Your task to perform on an android device: turn on improve location accuracy Image 0: 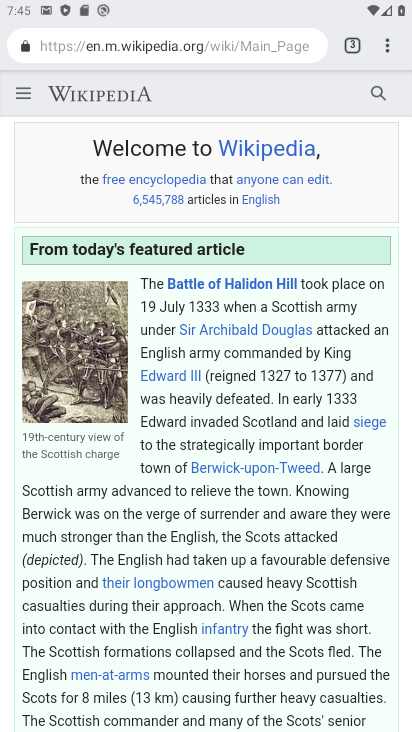
Step 0: press home button
Your task to perform on an android device: turn on improve location accuracy Image 1: 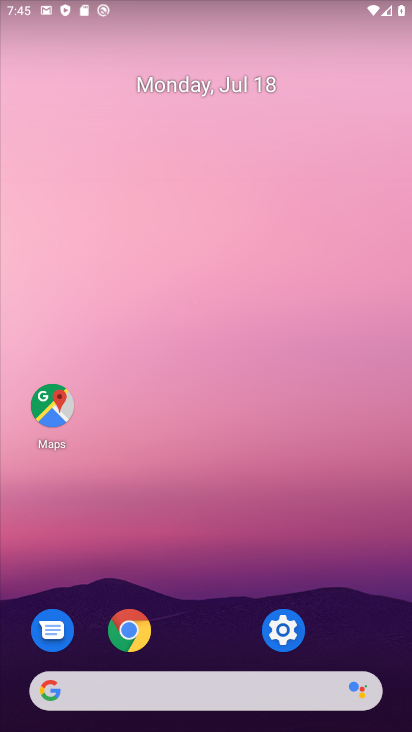
Step 1: click (283, 637)
Your task to perform on an android device: turn on improve location accuracy Image 2: 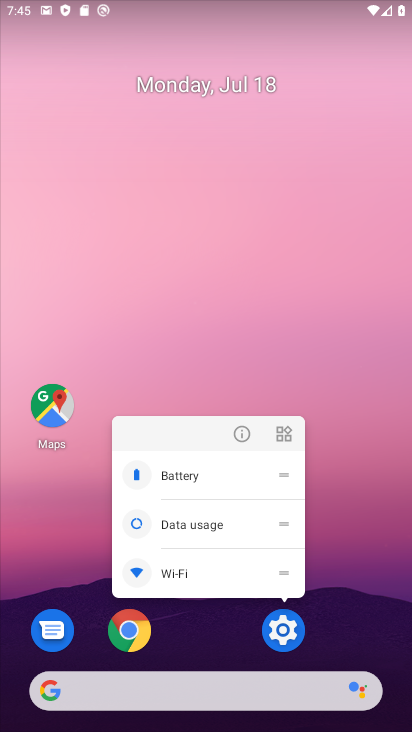
Step 2: click (196, 312)
Your task to perform on an android device: turn on improve location accuracy Image 3: 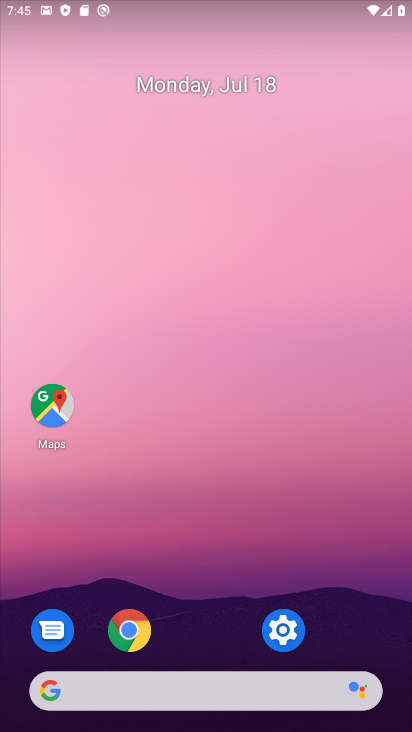
Step 3: click (289, 618)
Your task to perform on an android device: turn on improve location accuracy Image 4: 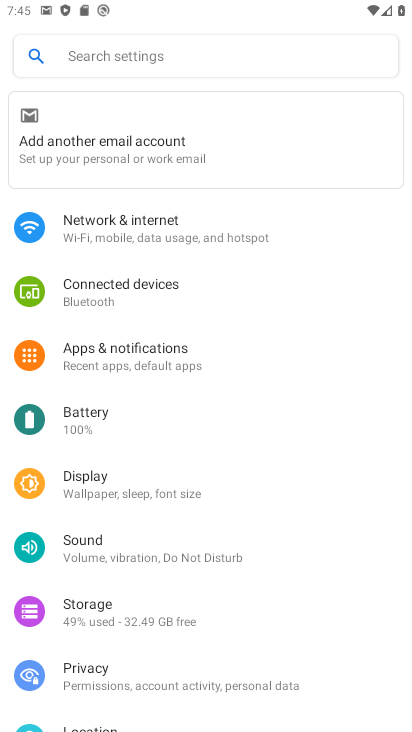
Step 4: click (100, 81)
Your task to perform on an android device: turn on improve location accuracy Image 5: 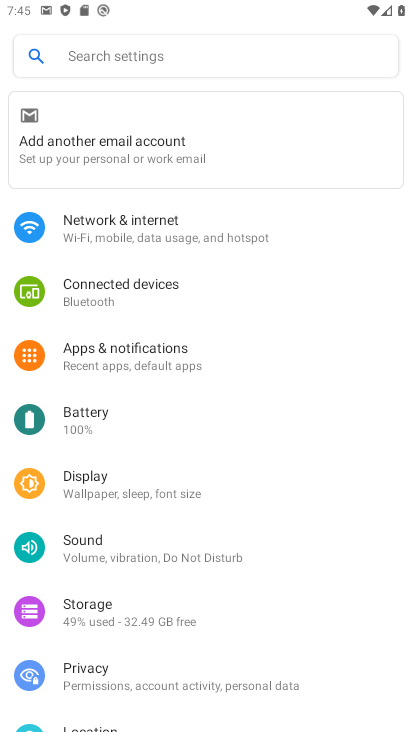
Step 5: click (108, 721)
Your task to perform on an android device: turn on improve location accuracy Image 6: 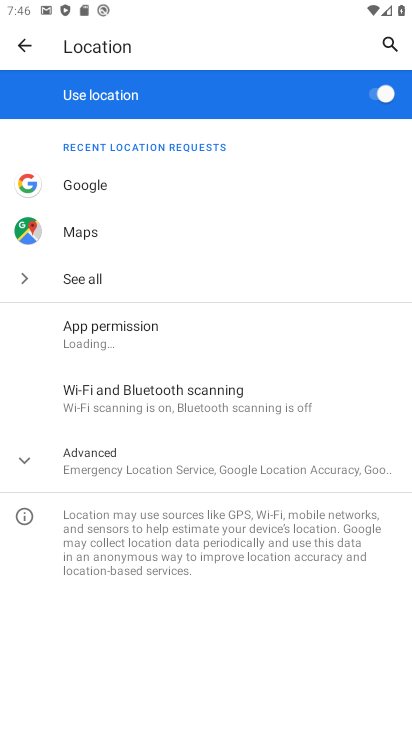
Step 6: click (11, 459)
Your task to perform on an android device: turn on improve location accuracy Image 7: 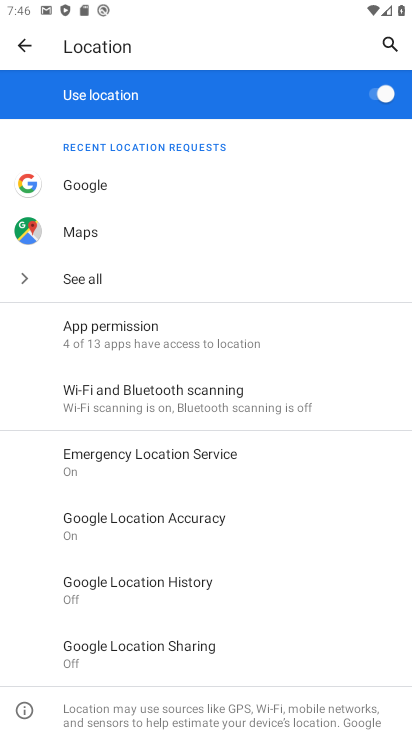
Step 7: click (164, 518)
Your task to perform on an android device: turn on improve location accuracy Image 8: 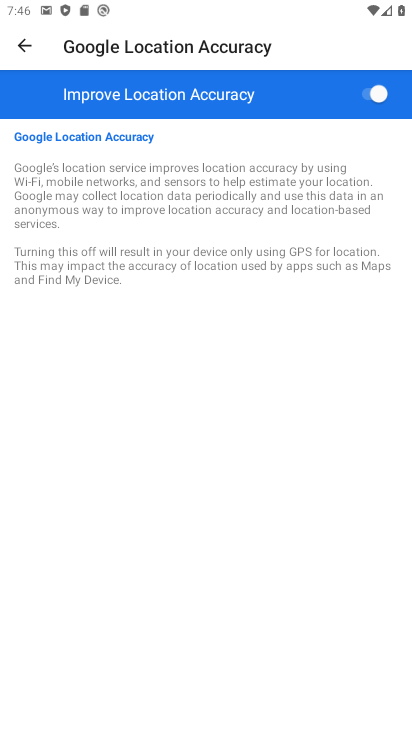
Step 8: task complete